Your task to perform on an android device: Open wifi settings Image 0: 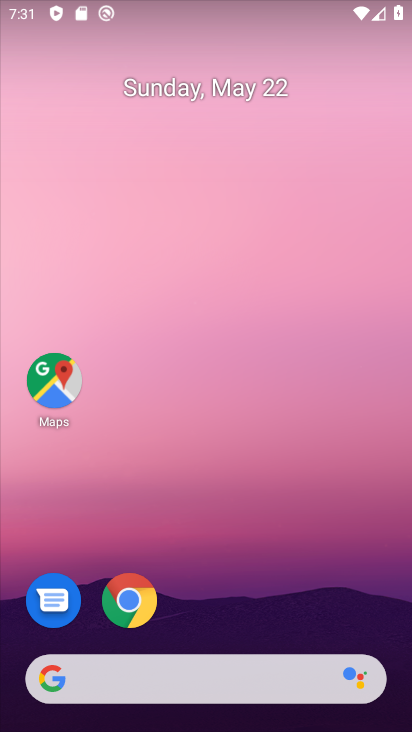
Step 0: drag from (227, 591) to (251, 14)
Your task to perform on an android device: Open wifi settings Image 1: 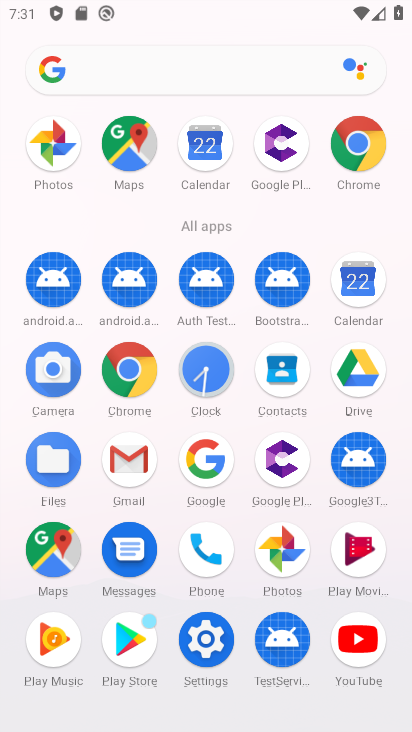
Step 1: click (205, 637)
Your task to perform on an android device: Open wifi settings Image 2: 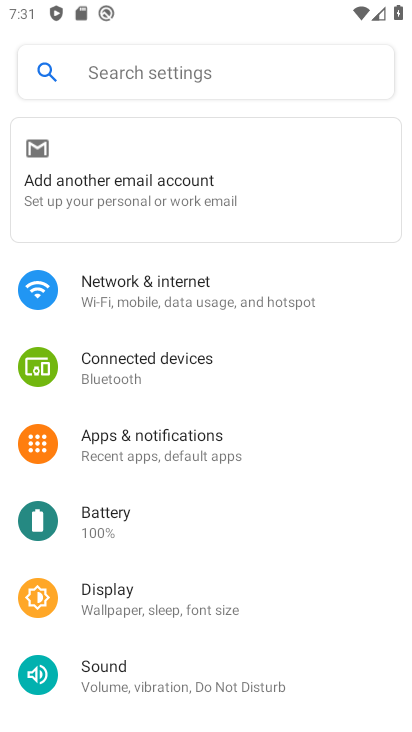
Step 2: click (145, 300)
Your task to perform on an android device: Open wifi settings Image 3: 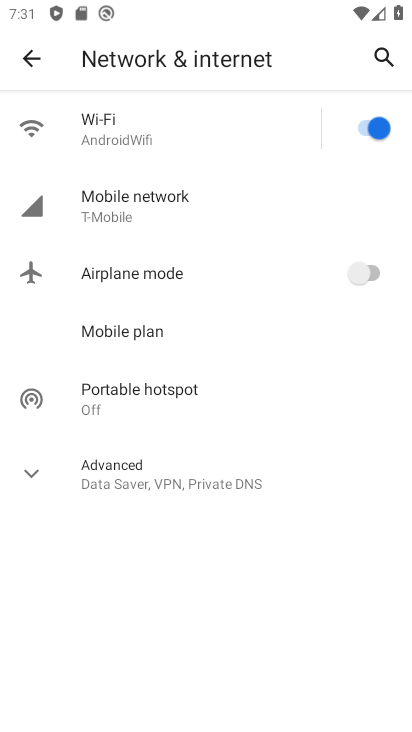
Step 3: click (132, 119)
Your task to perform on an android device: Open wifi settings Image 4: 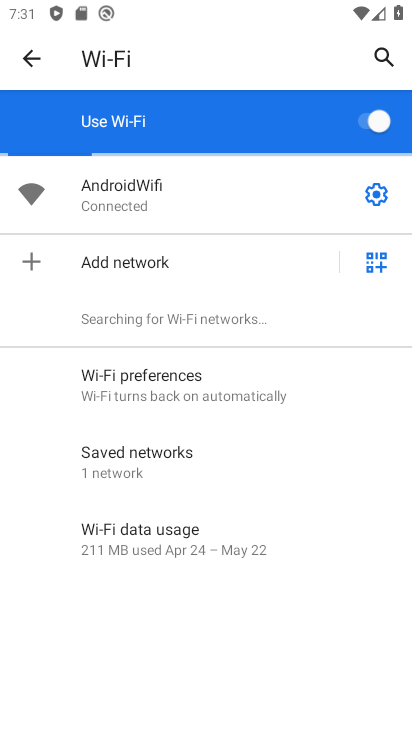
Step 4: task complete